Your task to perform on an android device: set the timer Image 0: 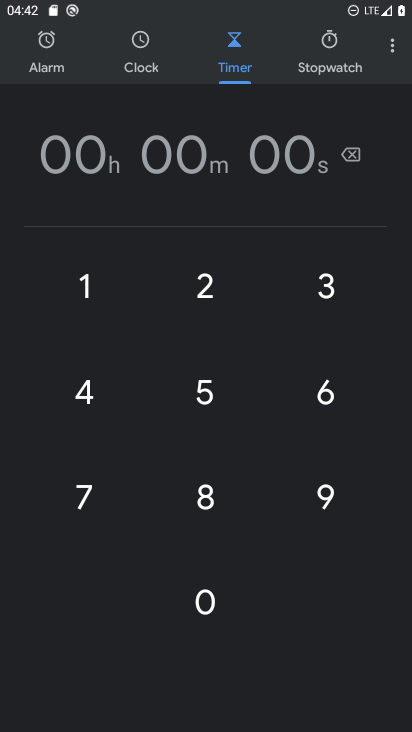
Step 0: press home button
Your task to perform on an android device: set the timer Image 1: 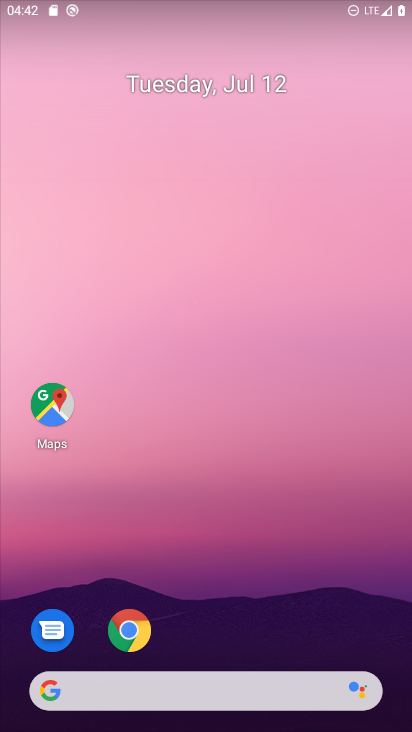
Step 1: drag from (214, 683) to (193, 5)
Your task to perform on an android device: set the timer Image 2: 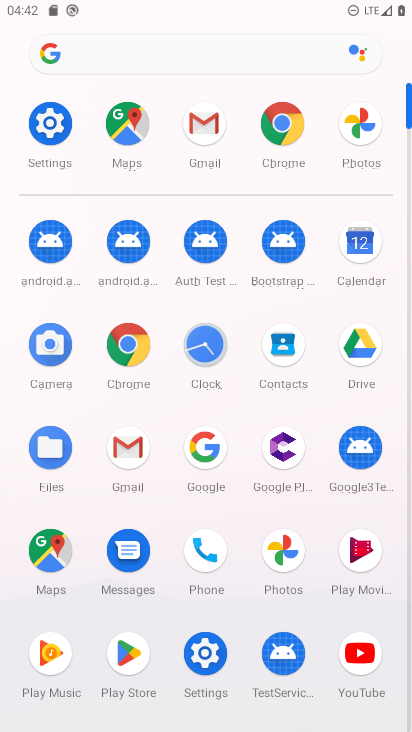
Step 2: click (206, 350)
Your task to perform on an android device: set the timer Image 3: 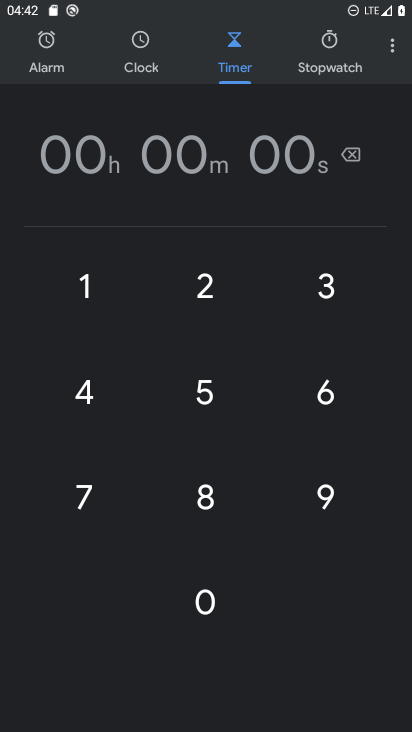
Step 3: click (198, 496)
Your task to perform on an android device: set the timer Image 4: 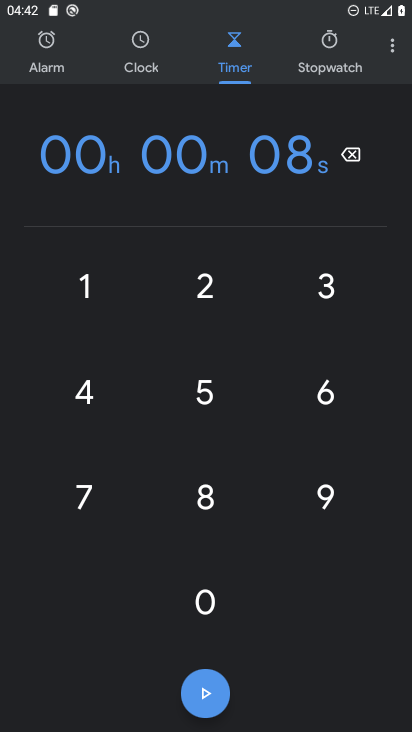
Step 4: click (317, 491)
Your task to perform on an android device: set the timer Image 5: 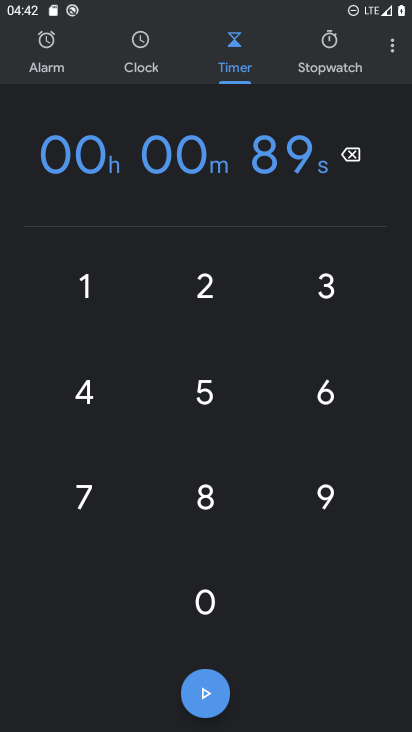
Step 5: click (202, 282)
Your task to perform on an android device: set the timer Image 6: 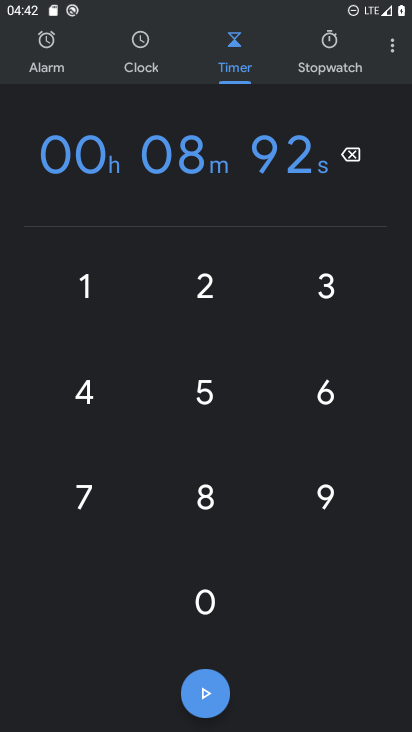
Step 6: click (318, 294)
Your task to perform on an android device: set the timer Image 7: 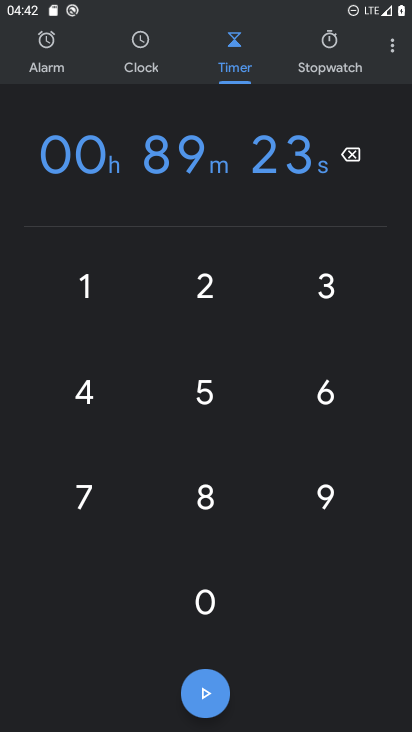
Step 7: click (191, 386)
Your task to perform on an android device: set the timer Image 8: 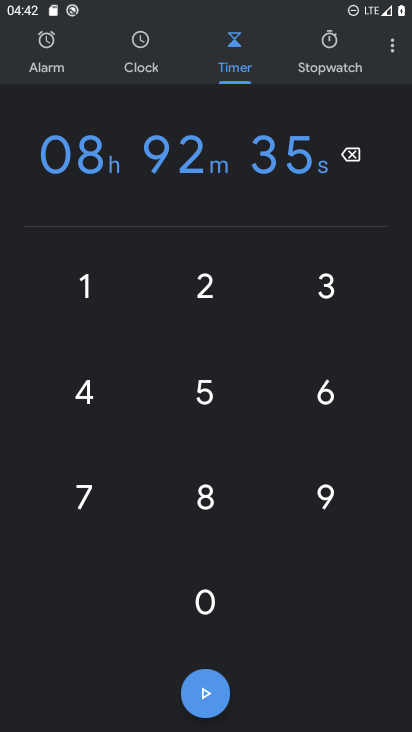
Step 8: click (315, 391)
Your task to perform on an android device: set the timer Image 9: 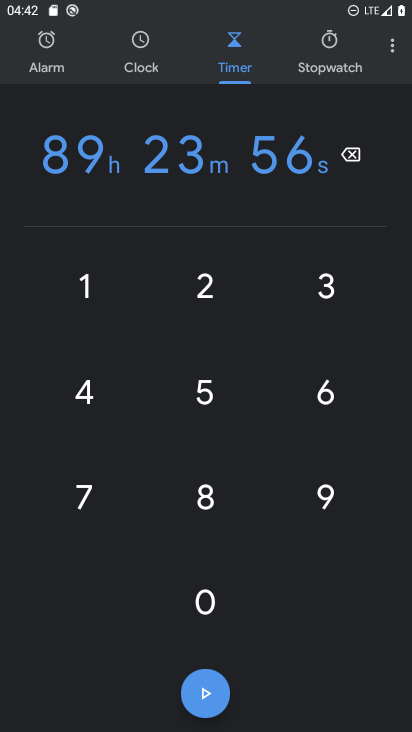
Step 9: click (200, 682)
Your task to perform on an android device: set the timer Image 10: 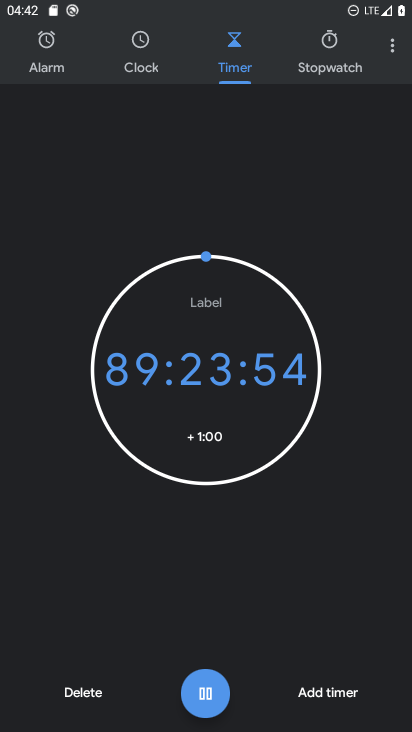
Step 10: task complete